Your task to perform on an android device: open app "HBO Max: Stream TV & Movies" (install if not already installed) Image 0: 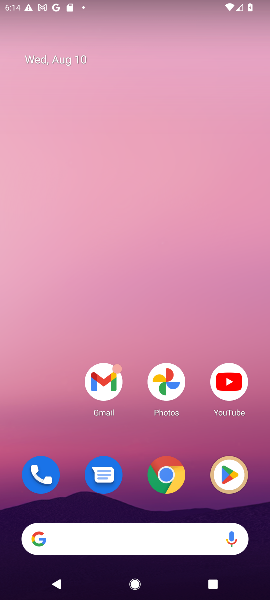
Step 0: drag from (130, 528) to (172, 158)
Your task to perform on an android device: open app "HBO Max: Stream TV & Movies" (install if not already installed) Image 1: 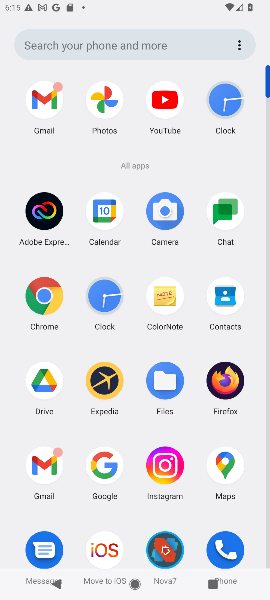
Step 1: drag from (126, 539) to (138, 276)
Your task to perform on an android device: open app "HBO Max: Stream TV & Movies" (install if not already installed) Image 2: 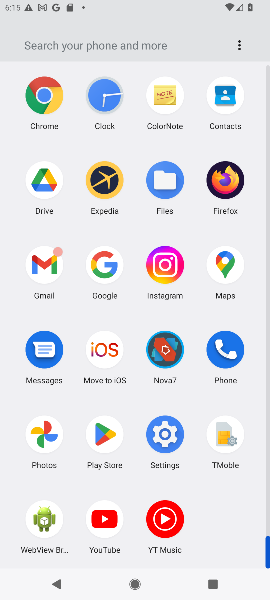
Step 2: click (105, 427)
Your task to perform on an android device: open app "HBO Max: Stream TV & Movies" (install if not already installed) Image 3: 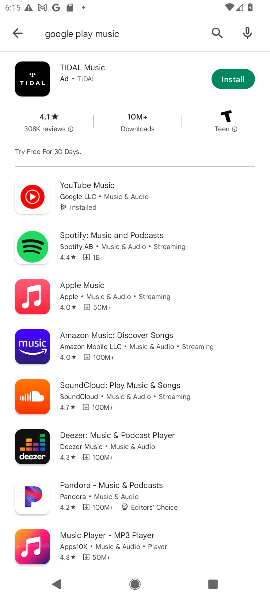
Step 3: click (212, 32)
Your task to perform on an android device: open app "HBO Max: Stream TV & Movies" (install if not already installed) Image 4: 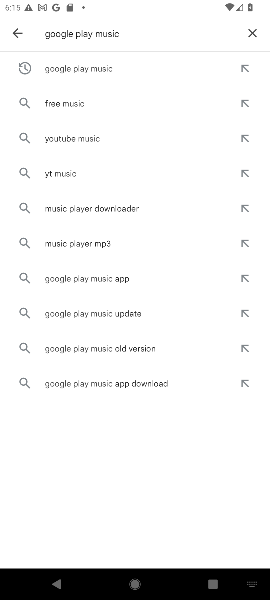
Step 4: click (254, 28)
Your task to perform on an android device: open app "HBO Max: Stream TV & Movies" (install if not already installed) Image 5: 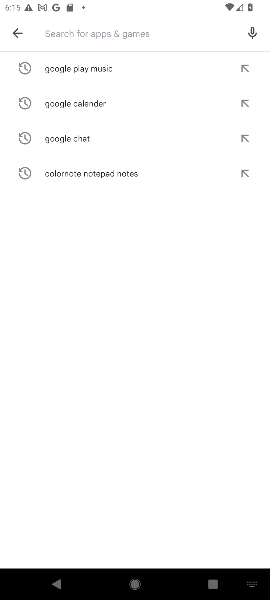
Step 5: type "HBO Max: Stream TV & Movies"
Your task to perform on an android device: open app "HBO Max: Stream TV & Movies" (install if not already installed) Image 6: 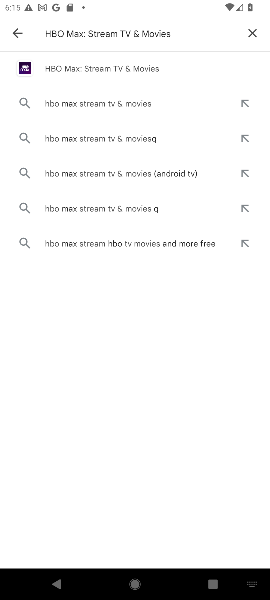
Step 6: click (108, 66)
Your task to perform on an android device: open app "HBO Max: Stream TV & Movies" (install if not already installed) Image 7: 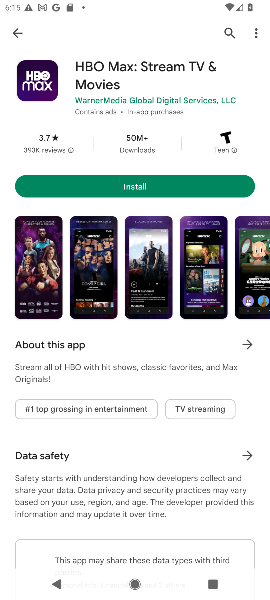
Step 7: click (131, 190)
Your task to perform on an android device: open app "HBO Max: Stream TV & Movies" (install if not already installed) Image 8: 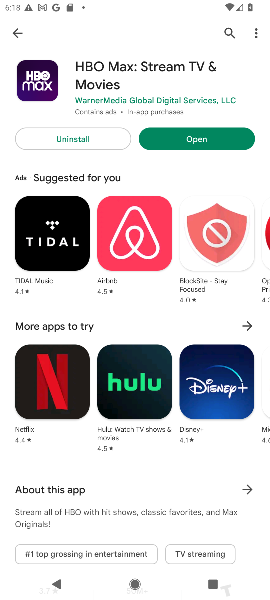
Step 8: click (213, 143)
Your task to perform on an android device: open app "HBO Max: Stream TV & Movies" (install if not already installed) Image 9: 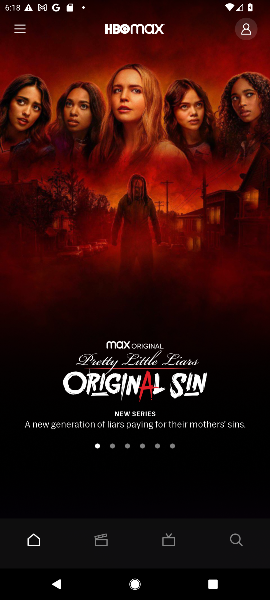
Step 9: task complete